Your task to perform on an android device: What's the weather? Image 0: 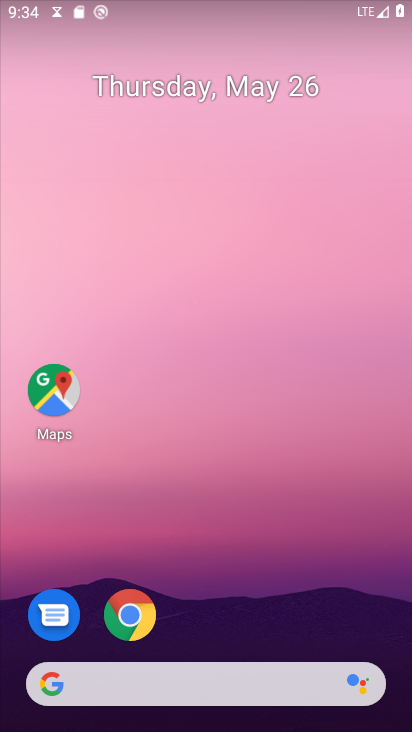
Step 0: click (128, 613)
Your task to perform on an android device: What's the weather? Image 1: 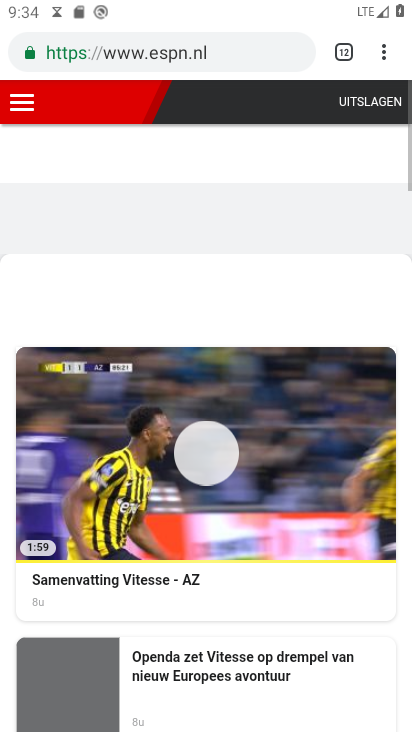
Step 1: click (383, 59)
Your task to perform on an android device: What's the weather? Image 2: 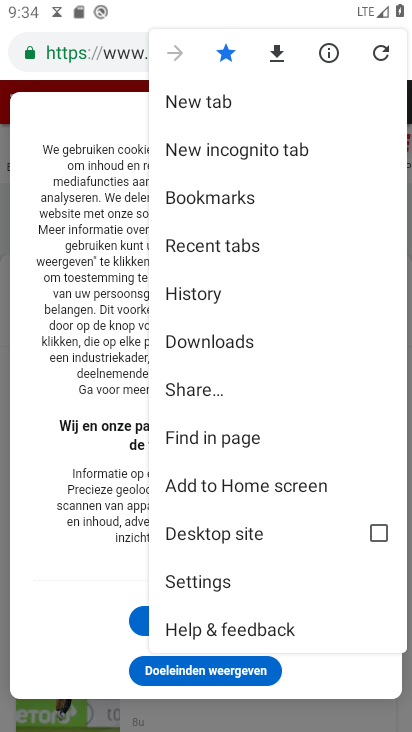
Step 2: click (200, 94)
Your task to perform on an android device: What's the weather? Image 3: 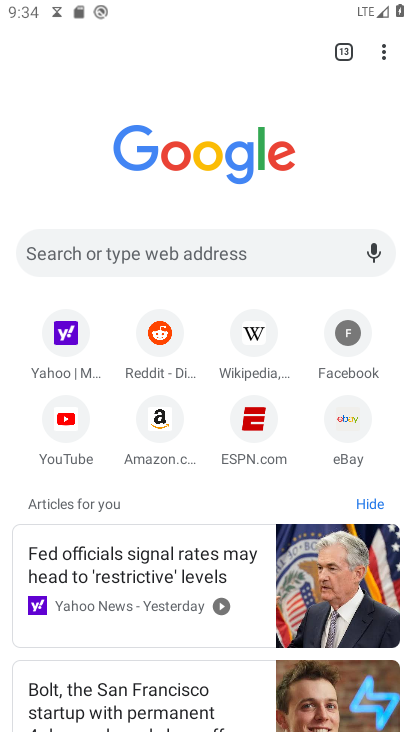
Step 3: click (227, 246)
Your task to perform on an android device: What's the weather? Image 4: 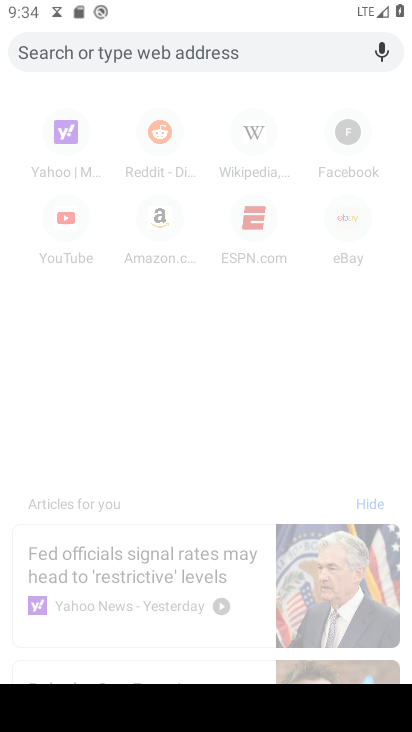
Step 4: type "What's the weather?"
Your task to perform on an android device: What's the weather? Image 5: 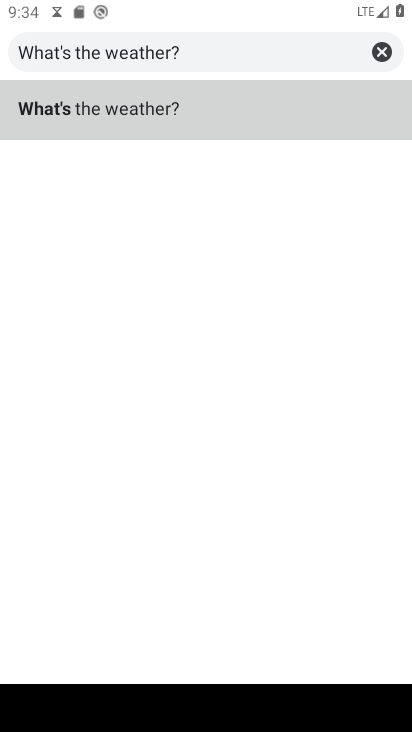
Step 5: click (262, 112)
Your task to perform on an android device: What's the weather? Image 6: 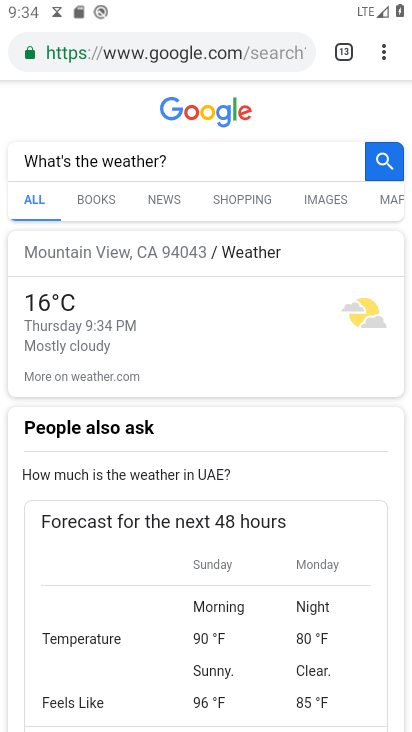
Step 6: task complete